Your task to perform on an android device: What's on my calendar today? Image 0: 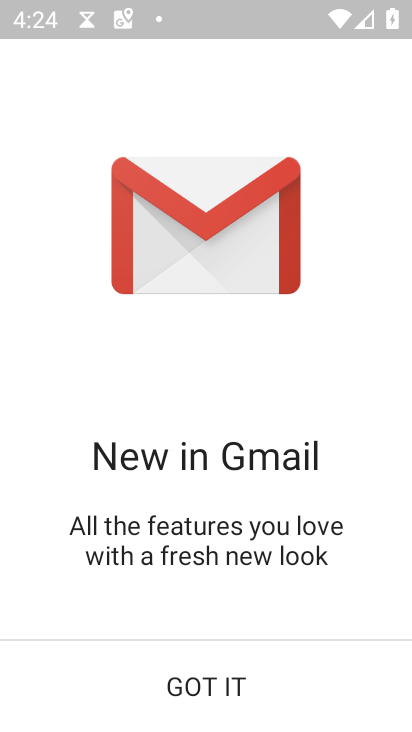
Step 0: press back button
Your task to perform on an android device: What's on my calendar today? Image 1: 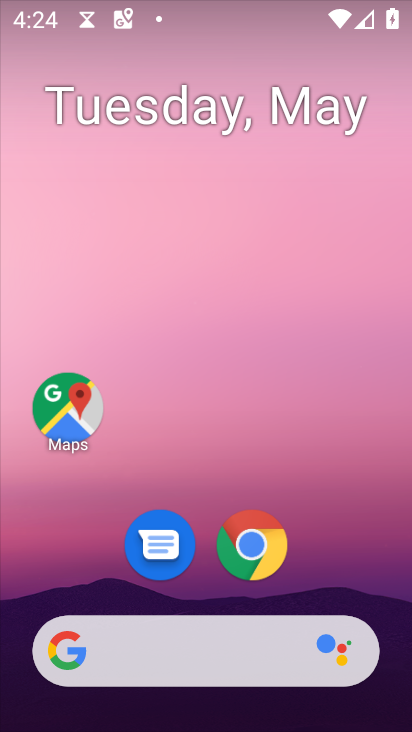
Step 1: drag from (337, 572) to (278, 131)
Your task to perform on an android device: What's on my calendar today? Image 2: 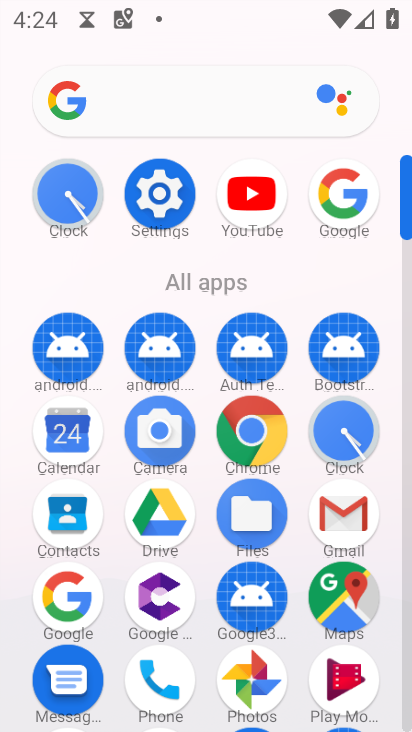
Step 2: click (67, 432)
Your task to perform on an android device: What's on my calendar today? Image 3: 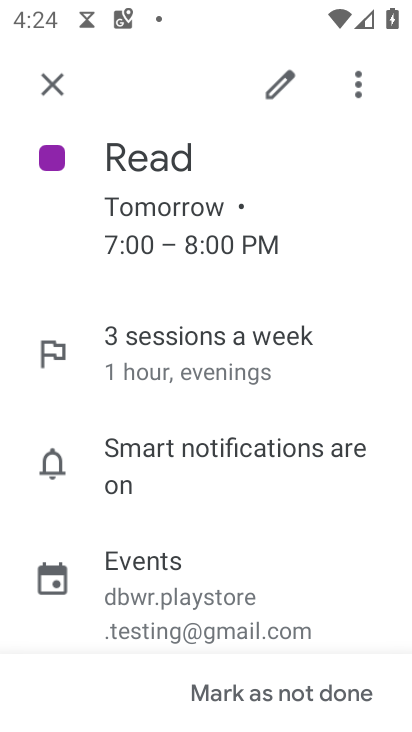
Step 3: click (50, 83)
Your task to perform on an android device: What's on my calendar today? Image 4: 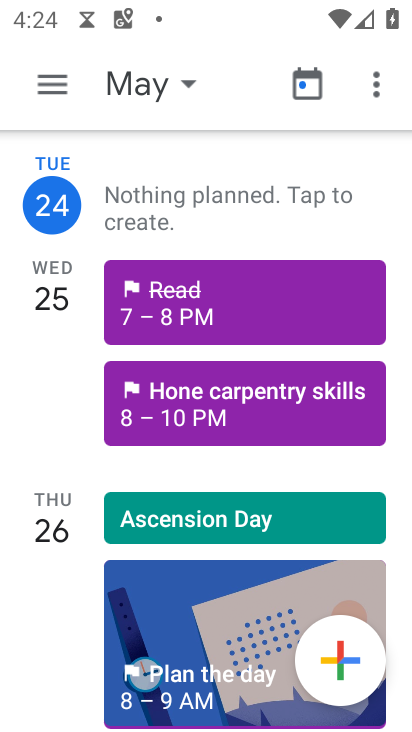
Step 4: click (129, 202)
Your task to perform on an android device: What's on my calendar today? Image 5: 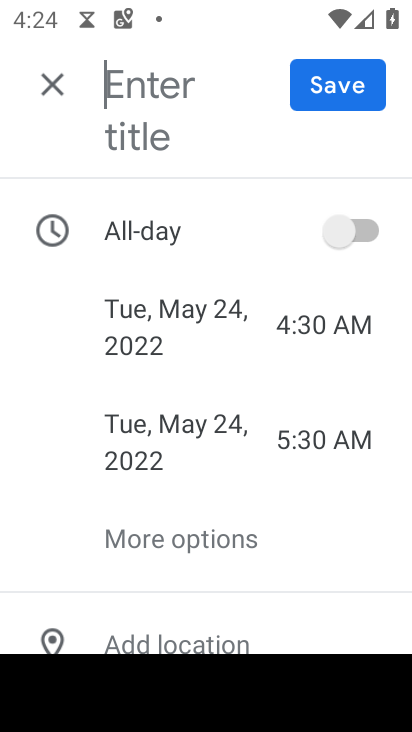
Step 5: task complete